Your task to perform on an android device: open a new tab in the chrome app Image 0: 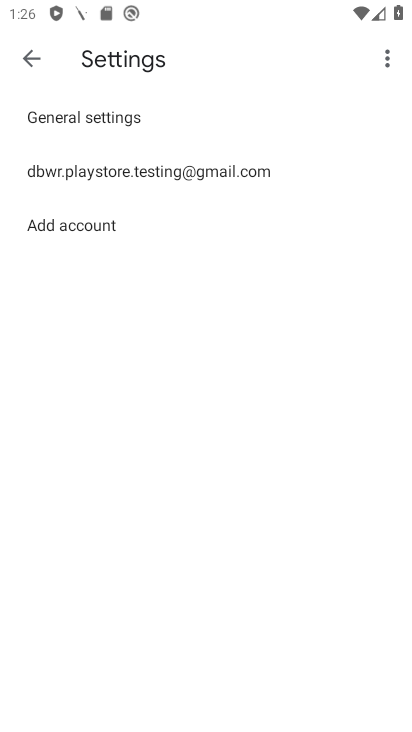
Step 0: press home button
Your task to perform on an android device: open a new tab in the chrome app Image 1: 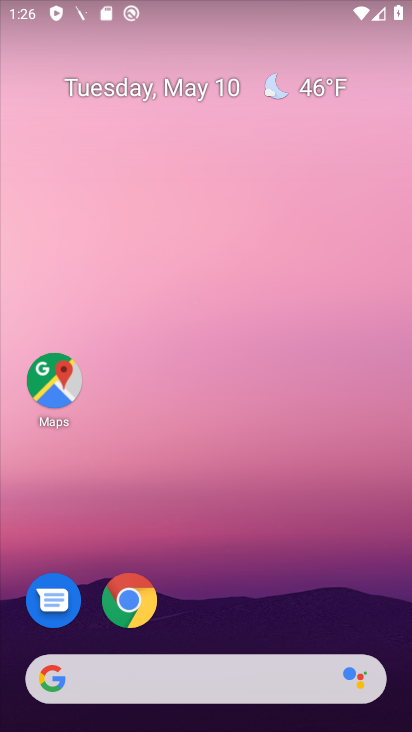
Step 1: drag from (234, 644) to (222, 35)
Your task to perform on an android device: open a new tab in the chrome app Image 2: 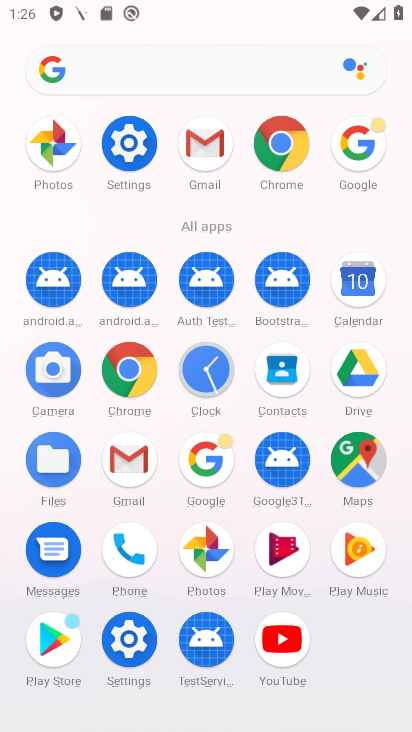
Step 2: click (134, 374)
Your task to perform on an android device: open a new tab in the chrome app Image 3: 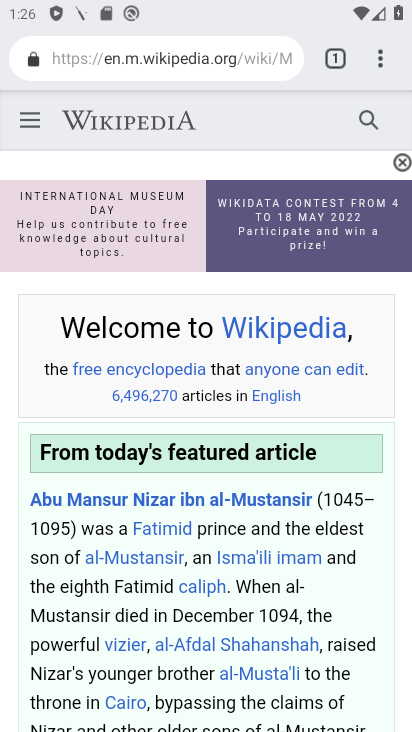
Step 3: click (321, 55)
Your task to perform on an android device: open a new tab in the chrome app Image 4: 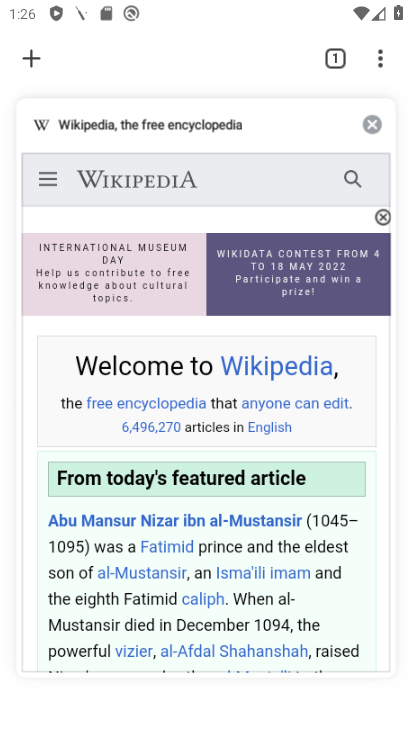
Step 4: click (32, 61)
Your task to perform on an android device: open a new tab in the chrome app Image 5: 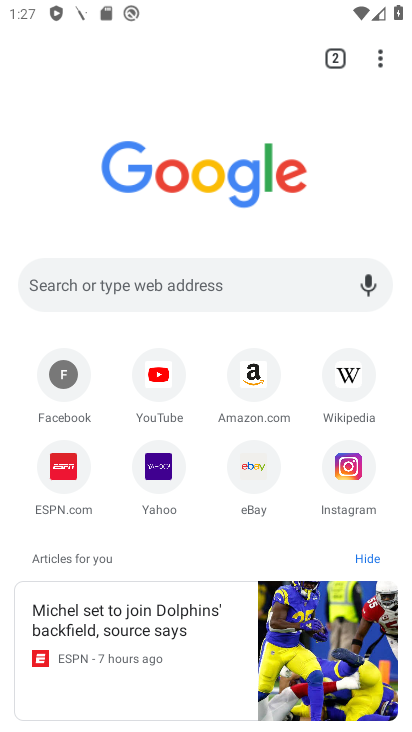
Step 5: task complete